Your task to perform on an android device: Open Google Chrome Image 0: 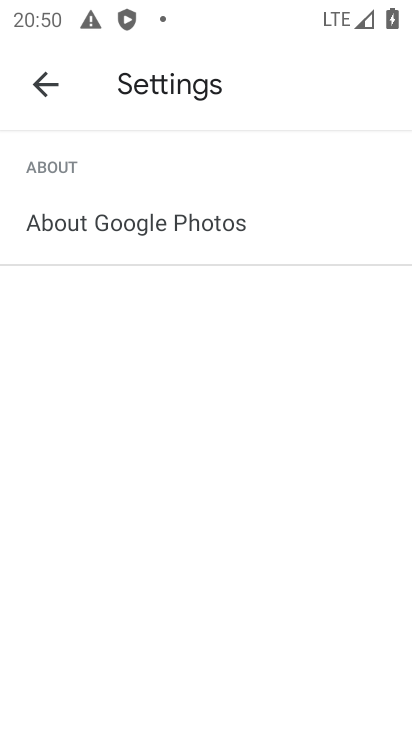
Step 0: press home button
Your task to perform on an android device: Open Google Chrome Image 1: 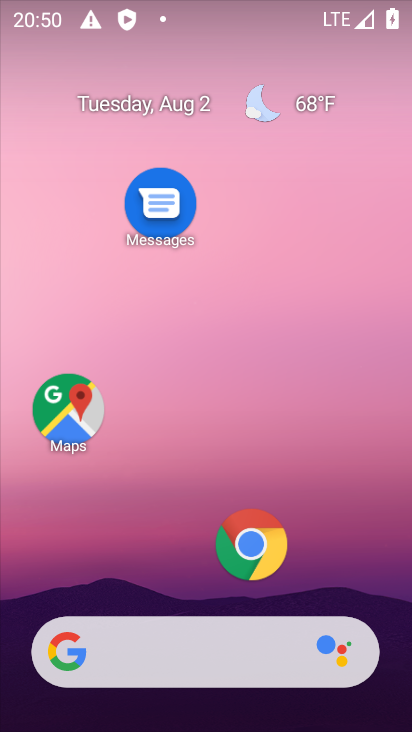
Step 1: click (251, 528)
Your task to perform on an android device: Open Google Chrome Image 2: 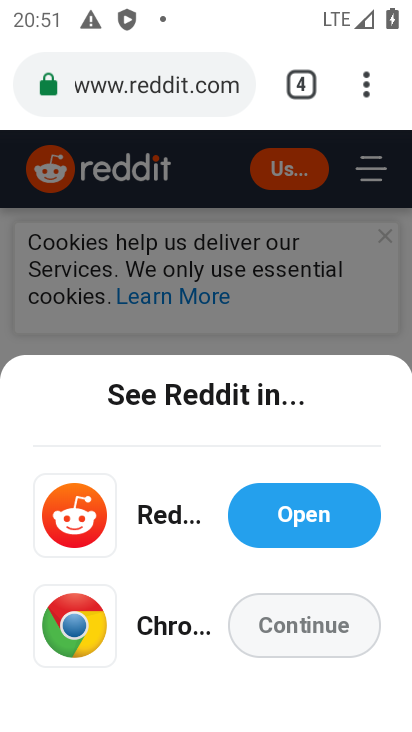
Step 2: task complete